Your task to perform on an android device: set an alarm Image 0: 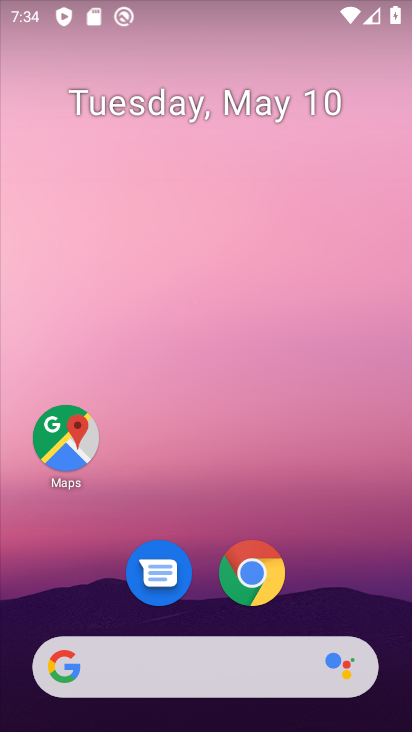
Step 0: drag from (381, 601) to (362, 133)
Your task to perform on an android device: set an alarm Image 1: 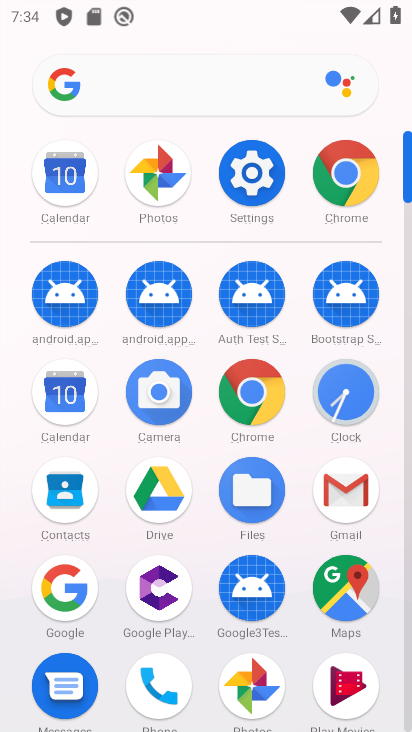
Step 1: click (353, 396)
Your task to perform on an android device: set an alarm Image 2: 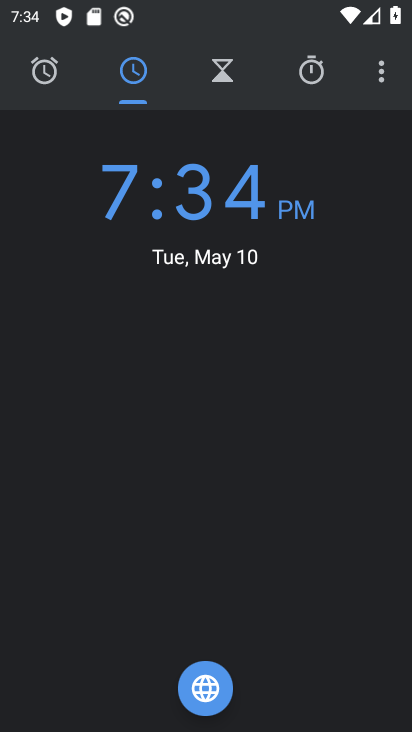
Step 2: click (33, 77)
Your task to perform on an android device: set an alarm Image 3: 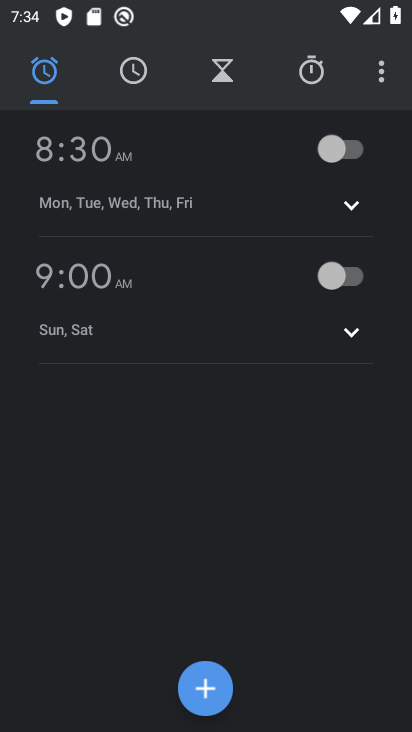
Step 3: task complete